Your task to perform on an android device: Open the web browser Image 0: 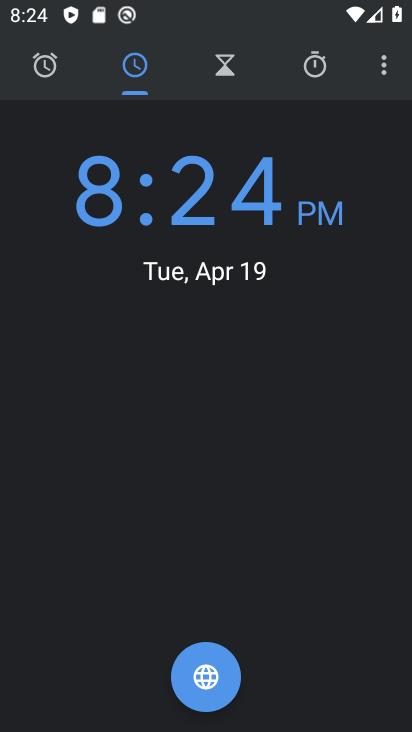
Step 0: press home button
Your task to perform on an android device: Open the web browser Image 1: 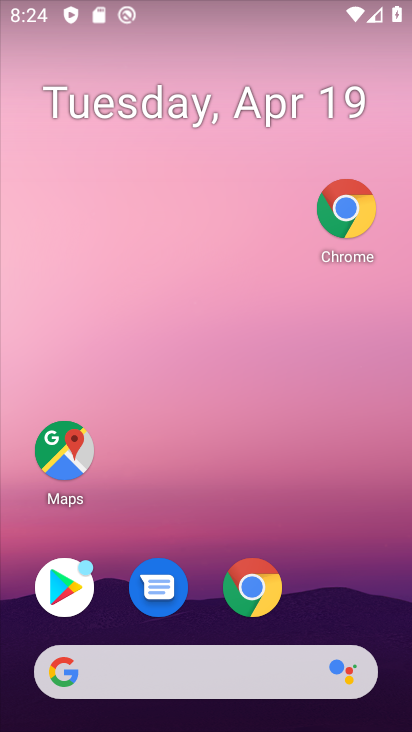
Step 1: drag from (286, 673) to (96, 9)
Your task to perform on an android device: Open the web browser Image 2: 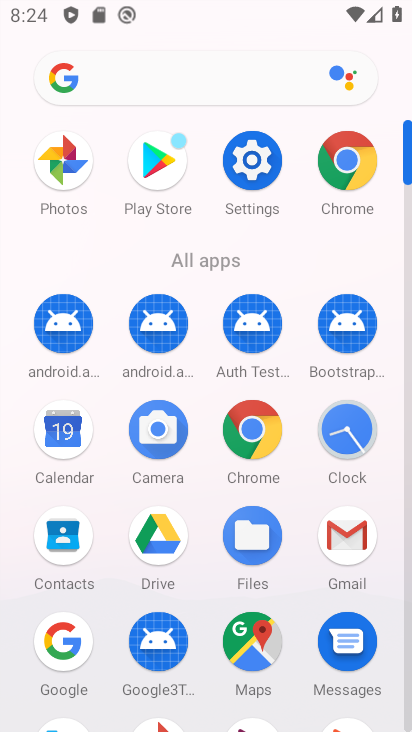
Step 2: click (341, 165)
Your task to perform on an android device: Open the web browser Image 3: 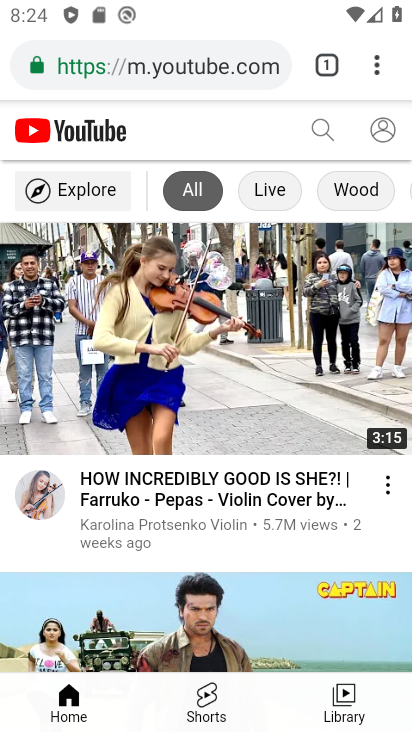
Step 3: click (377, 56)
Your task to perform on an android device: Open the web browser Image 4: 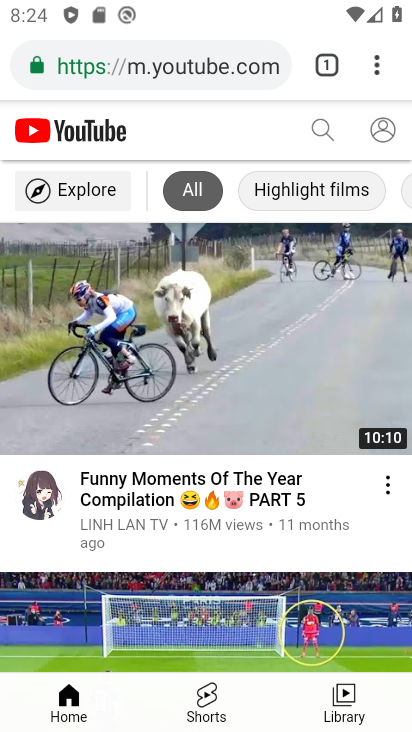
Step 4: click (369, 69)
Your task to perform on an android device: Open the web browser Image 5: 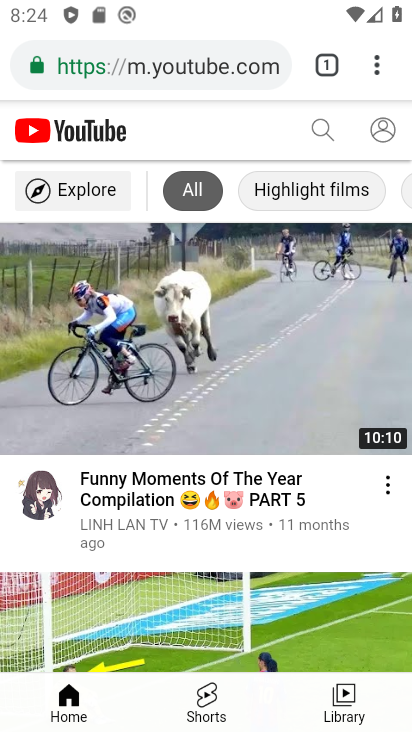
Step 5: click (380, 65)
Your task to perform on an android device: Open the web browser Image 6: 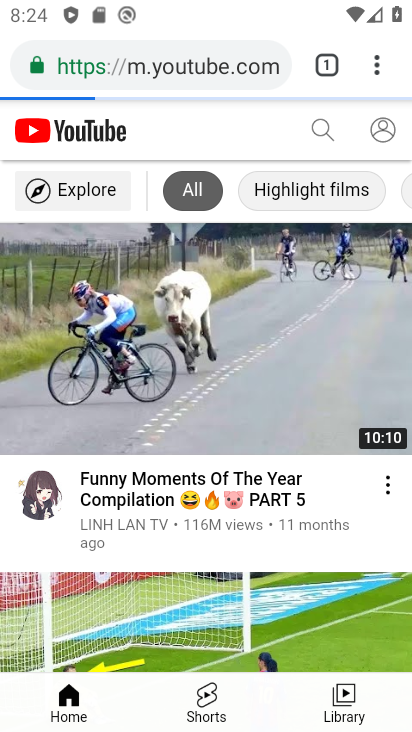
Step 6: click (173, 118)
Your task to perform on an android device: Open the web browser Image 7: 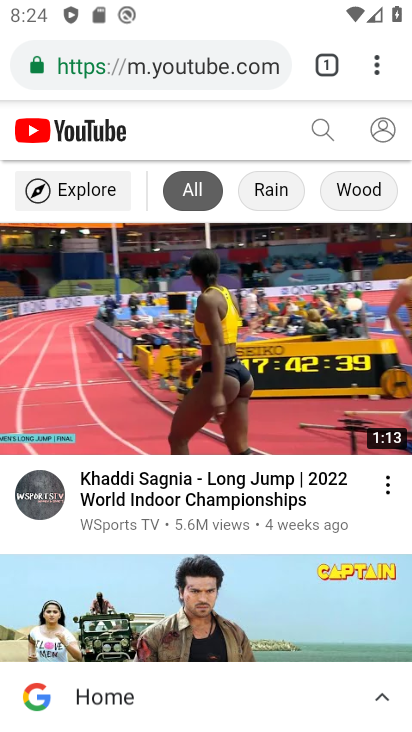
Step 7: click (370, 66)
Your task to perform on an android device: Open the web browser Image 8: 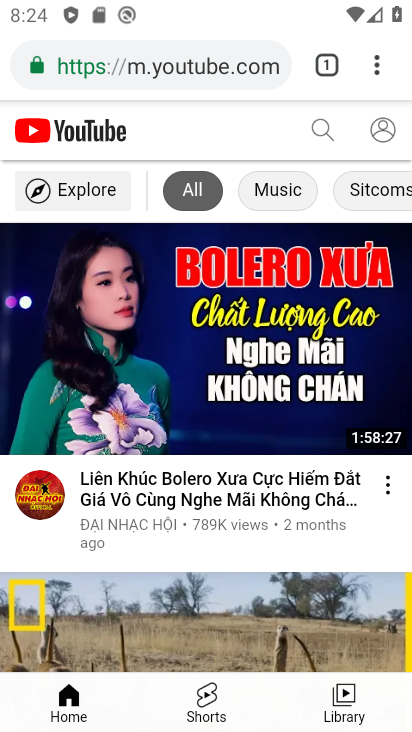
Step 8: click (369, 72)
Your task to perform on an android device: Open the web browser Image 9: 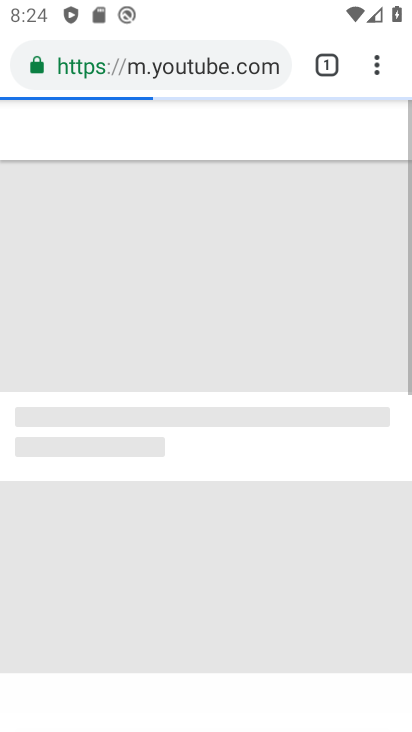
Step 9: click (128, 140)
Your task to perform on an android device: Open the web browser Image 10: 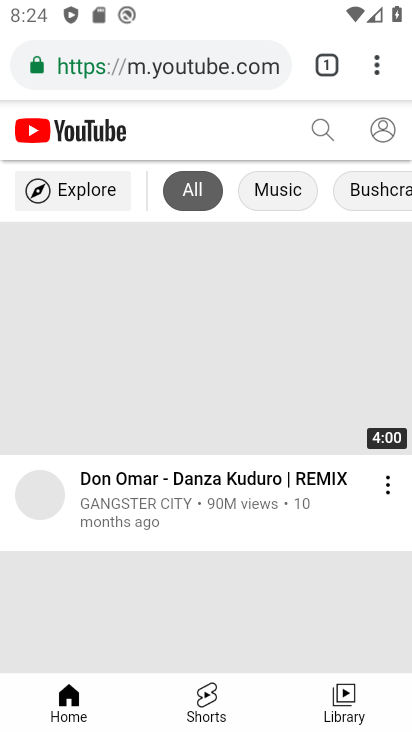
Step 10: press back button
Your task to perform on an android device: Open the web browser Image 11: 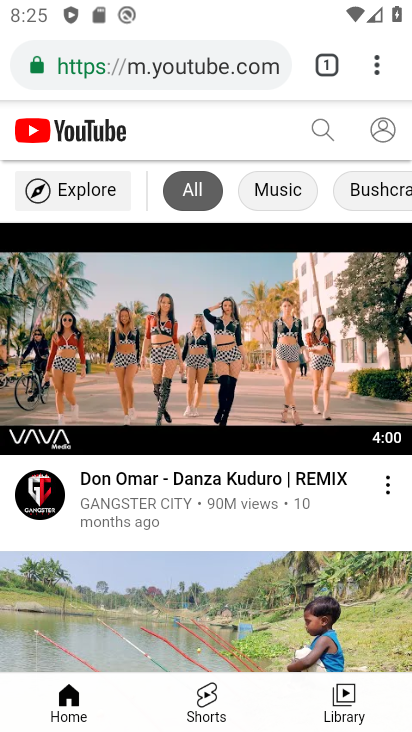
Step 11: press back button
Your task to perform on an android device: Open the web browser Image 12: 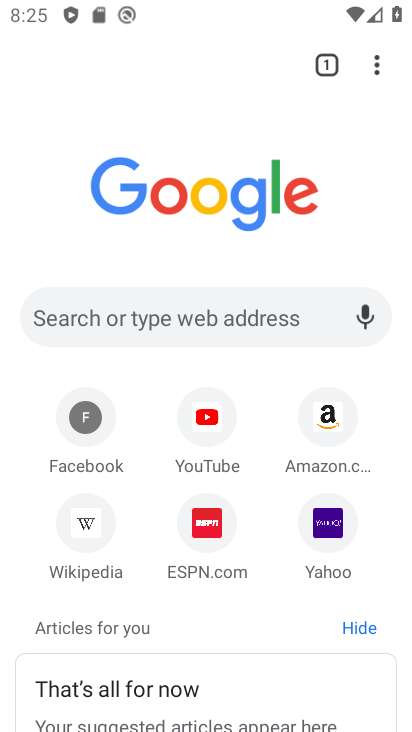
Step 12: click (226, 319)
Your task to perform on an android device: Open the web browser Image 13: 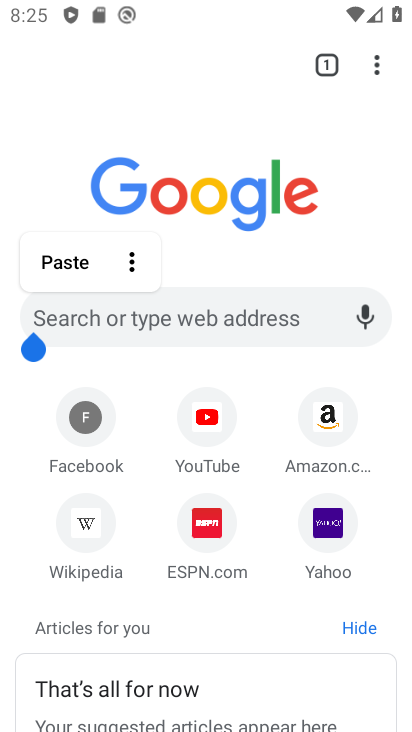
Step 13: task complete